Your task to perform on an android device: turn on airplane mode Image 0: 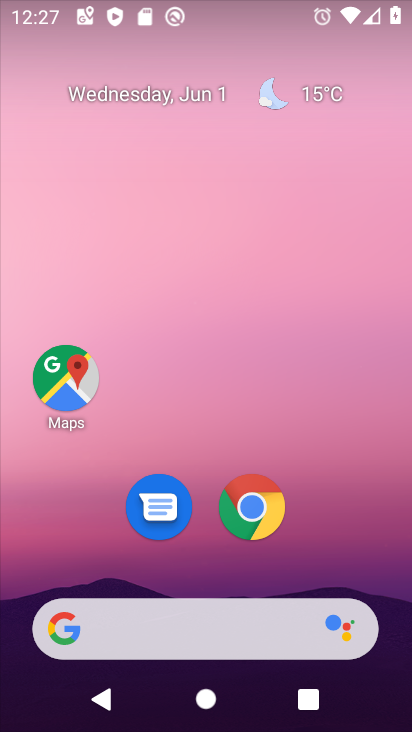
Step 0: drag from (333, 563) to (294, 210)
Your task to perform on an android device: turn on airplane mode Image 1: 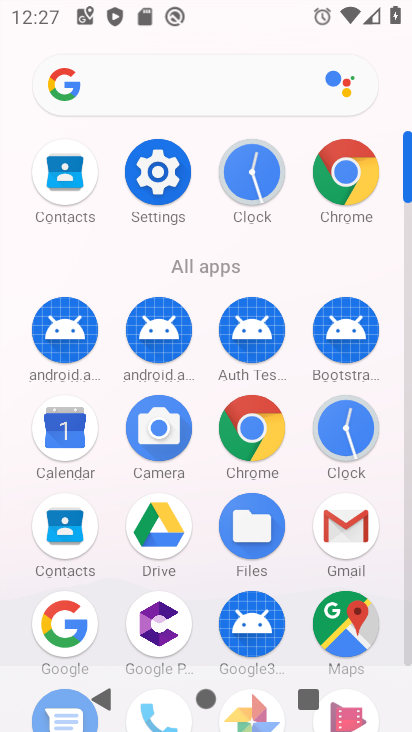
Step 1: click (158, 173)
Your task to perform on an android device: turn on airplane mode Image 2: 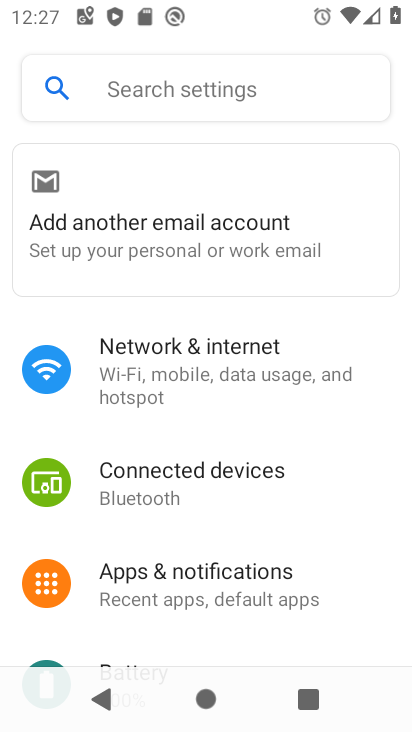
Step 2: click (208, 354)
Your task to perform on an android device: turn on airplane mode Image 3: 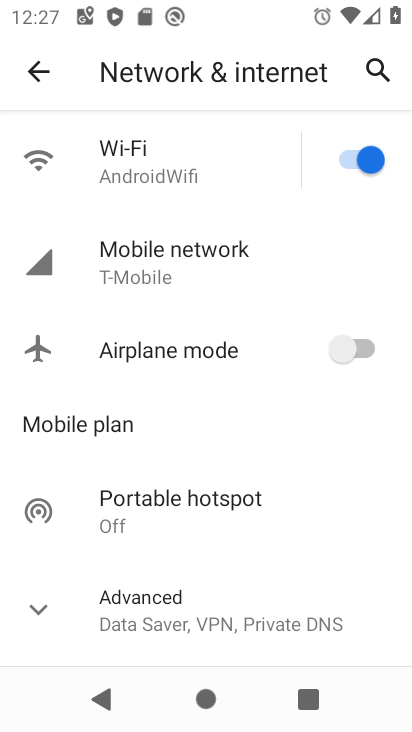
Step 3: click (336, 351)
Your task to perform on an android device: turn on airplane mode Image 4: 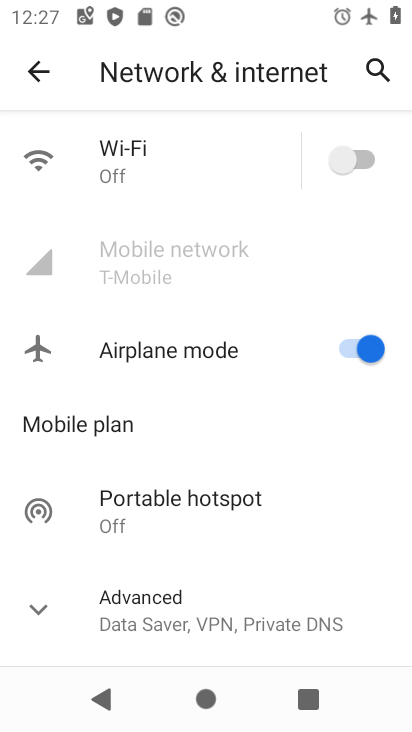
Step 4: task complete